Your task to perform on an android device: Go to display settings Image 0: 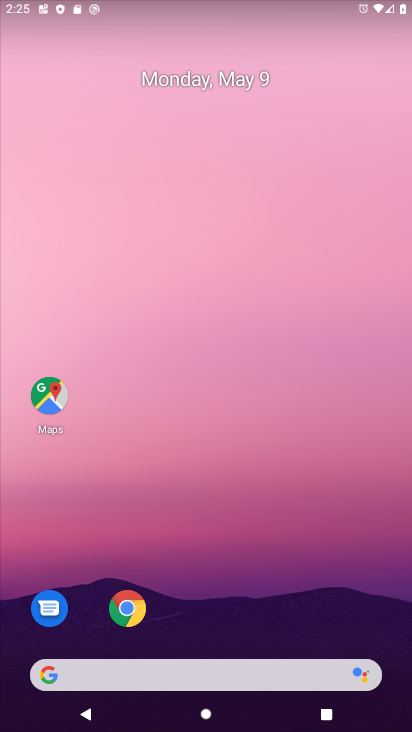
Step 0: drag from (260, 617) to (282, 145)
Your task to perform on an android device: Go to display settings Image 1: 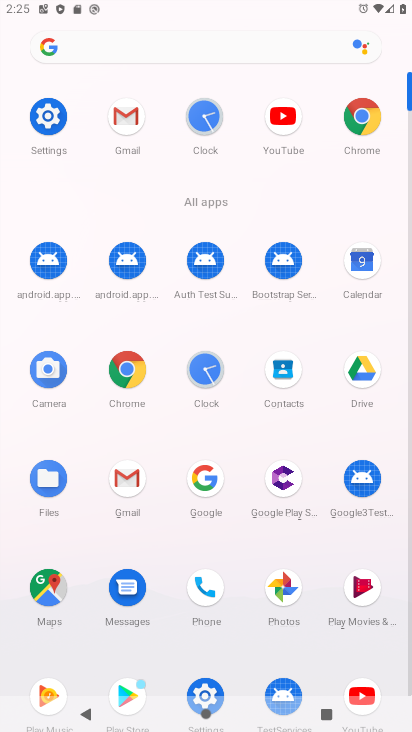
Step 1: click (44, 114)
Your task to perform on an android device: Go to display settings Image 2: 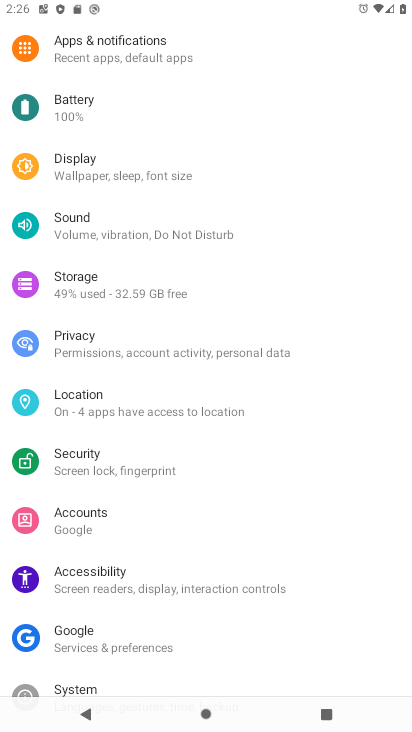
Step 2: click (97, 191)
Your task to perform on an android device: Go to display settings Image 3: 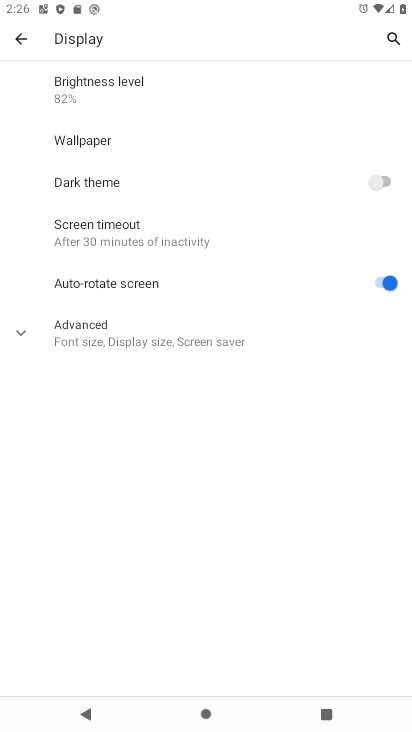
Step 3: task complete